Your task to perform on an android device: change the clock display to digital Image 0: 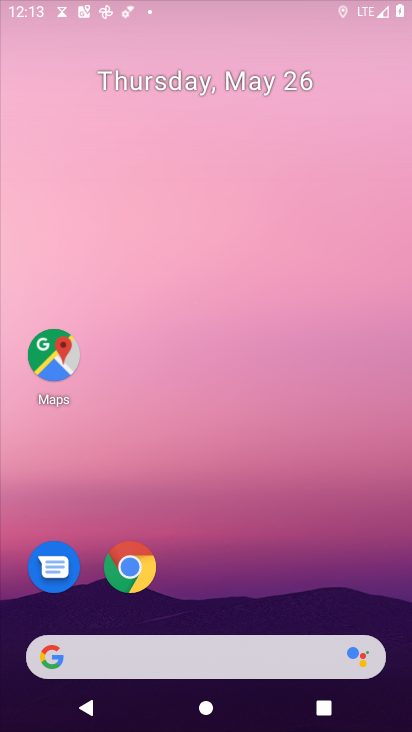
Step 0: drag from (260, 565) to (236, 182)
Your task to perform on an android device: change the clock display to digital Image 1: 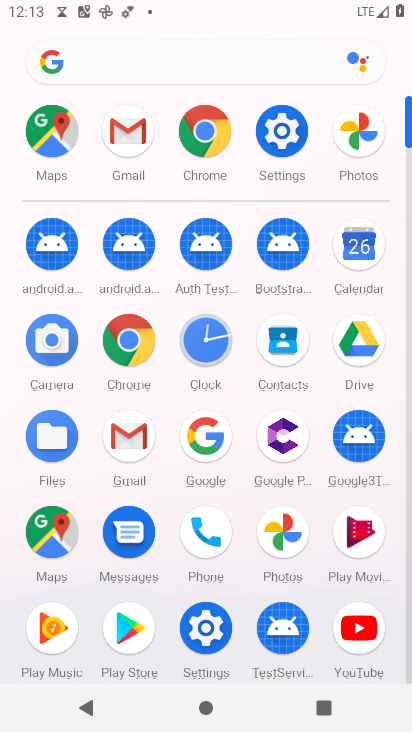
Step 1: click (217, 341)
Your task to perform on an android device: change the clock display to digital Image 2: 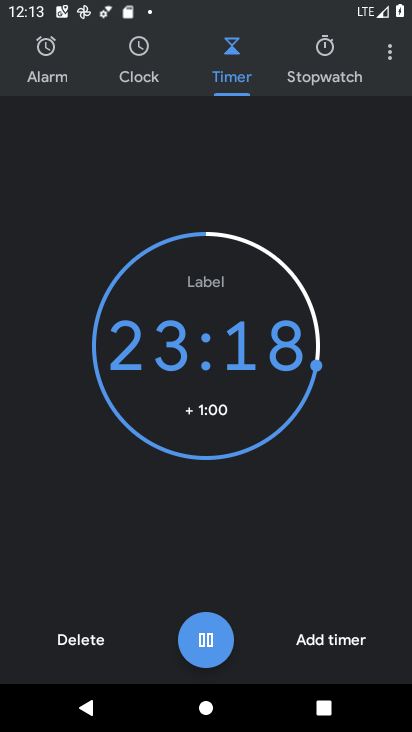
Step 2: click (372, 54)
Your task to perform on an android device: change the clock display to digital Image 3: 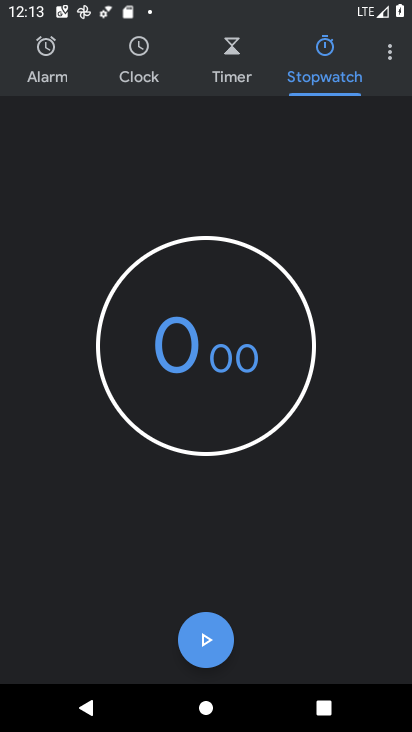
Step 3: click (404, 38)
Your task to perform on an android device: change the clock display to digital Image 4: 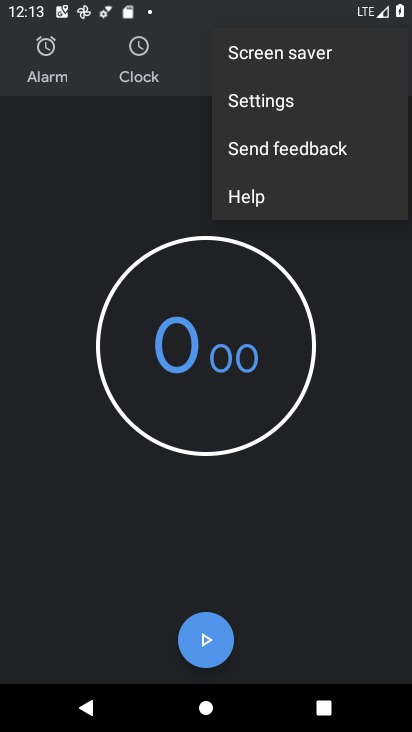
Step 4: click (336, 118)
Your task to perform on an android device: change the clock display to digital Image 5: 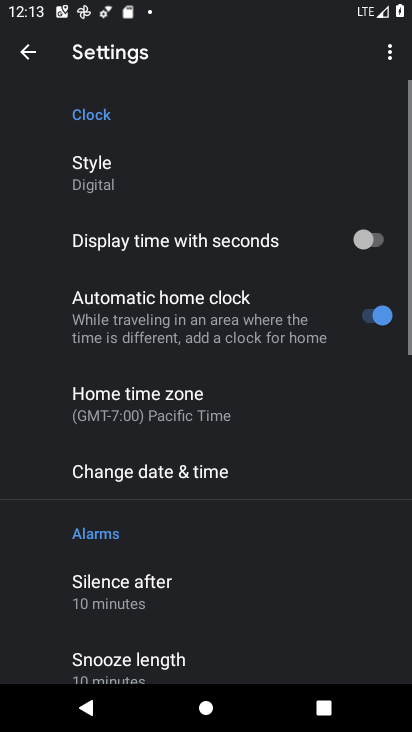
Step 5: click (159, 186)
Your task to perform on an android device: change the clock display to digital Image 6: 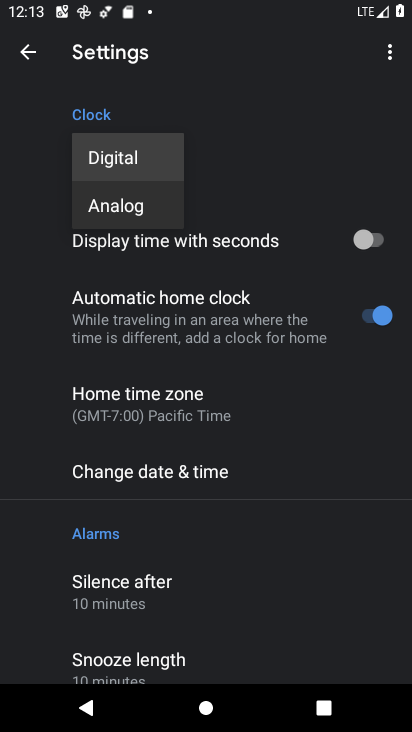
Step 6: click (146, 156)
Your task to perform on an android device: change the clock display to digital Image 7: 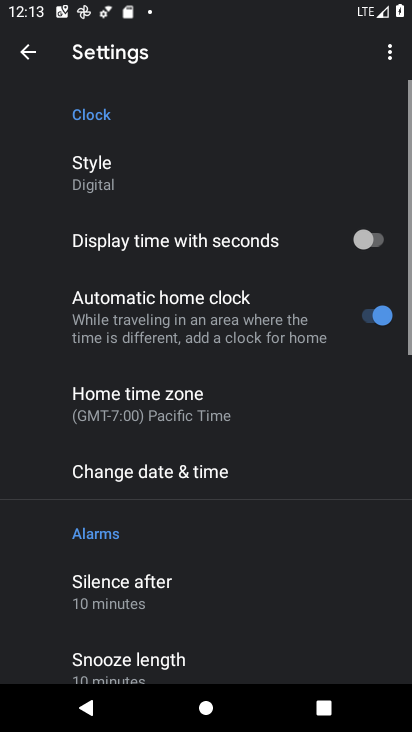
Step 7: task complete